Your task to perform on an android device: Open the map Image 0: 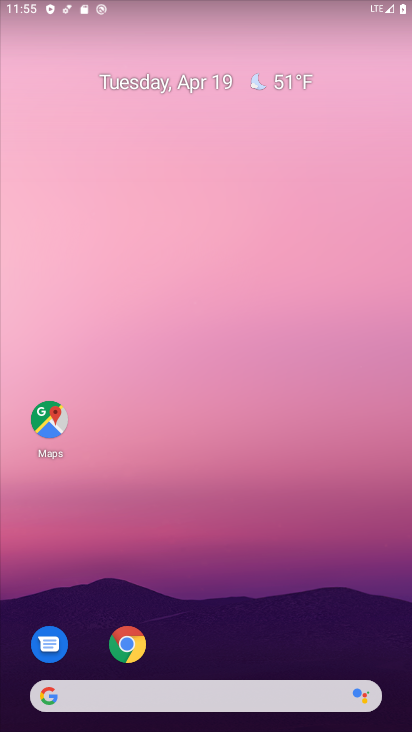
Step 0: drag from (218, 719) to (218, 125)
Your task to perform on an android device: Open the map Image 1: 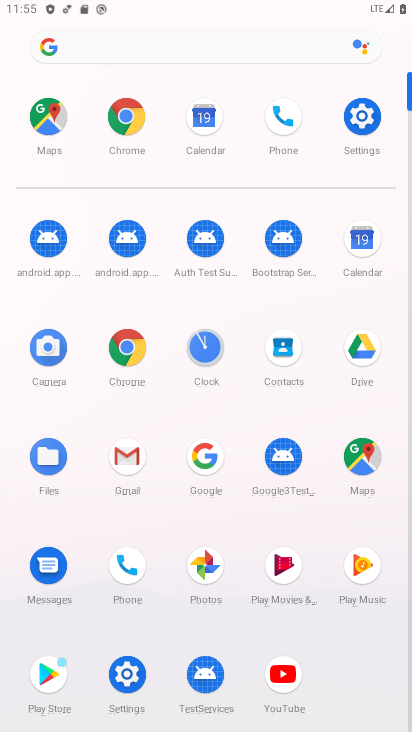
Step 1: click (363, 461)
Your task to perform on an android device: Open the map Image 2: 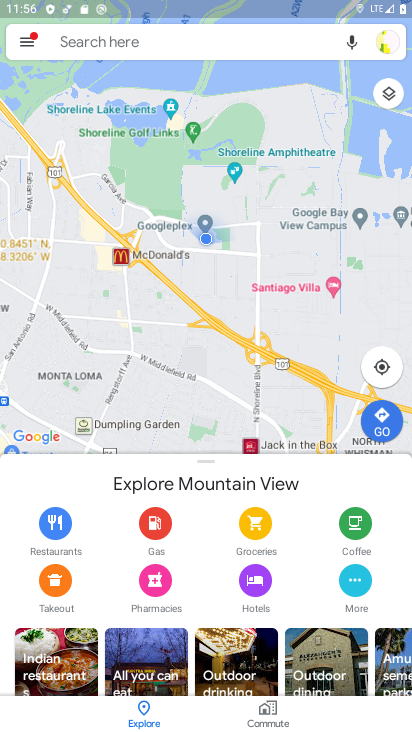
Step 2: task complete